Your task to perform on an android device: set default search engine in the chrome app Image 0: 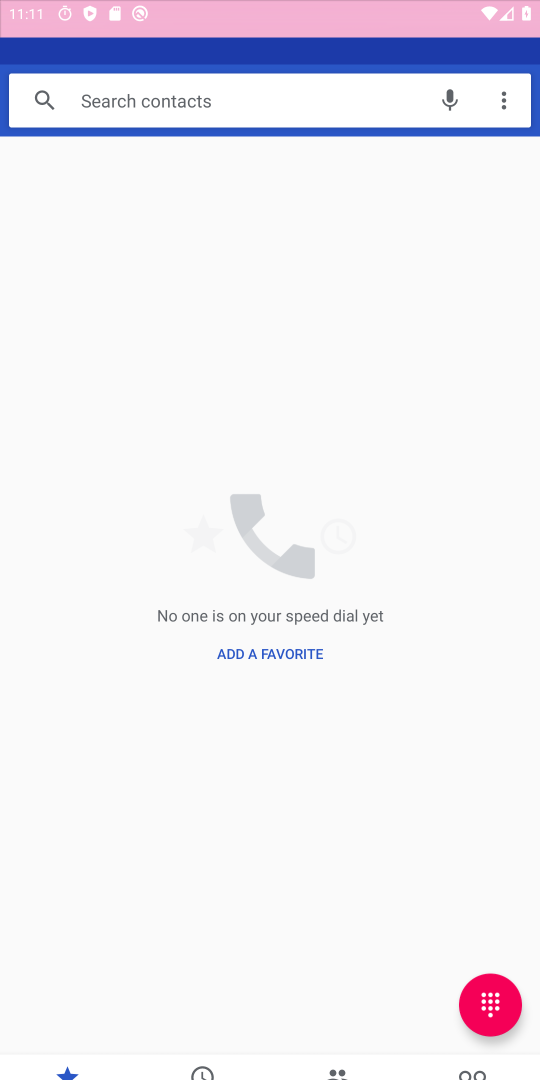
Step 0: press home button
Your task to perform on an android device: set default search engine in the chrome app Image 1: 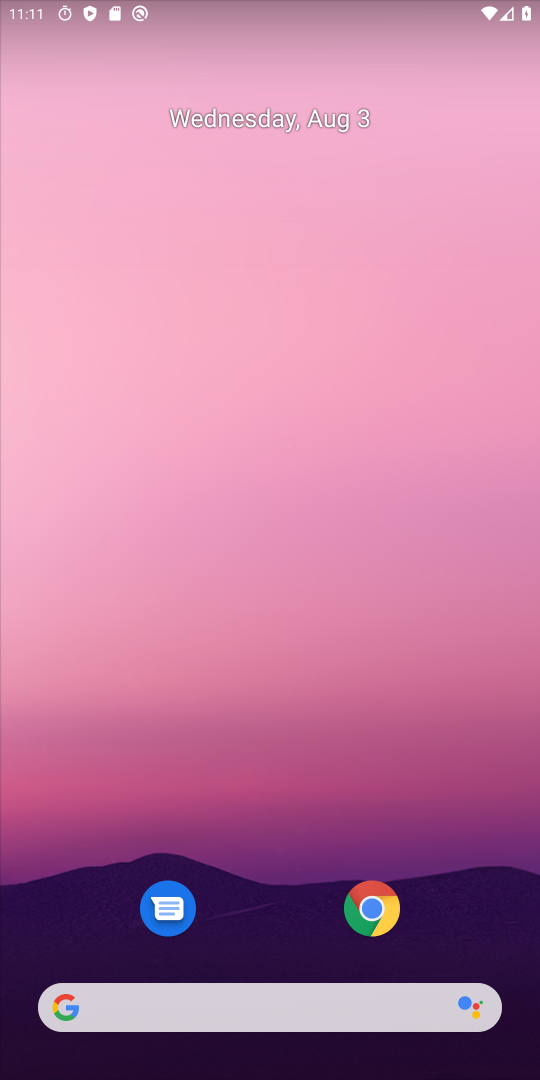
Step 1: drag from (296, 1034) to (242, 219)
Your task to perform on an android device: set default search engine in the chrome app Image 2: 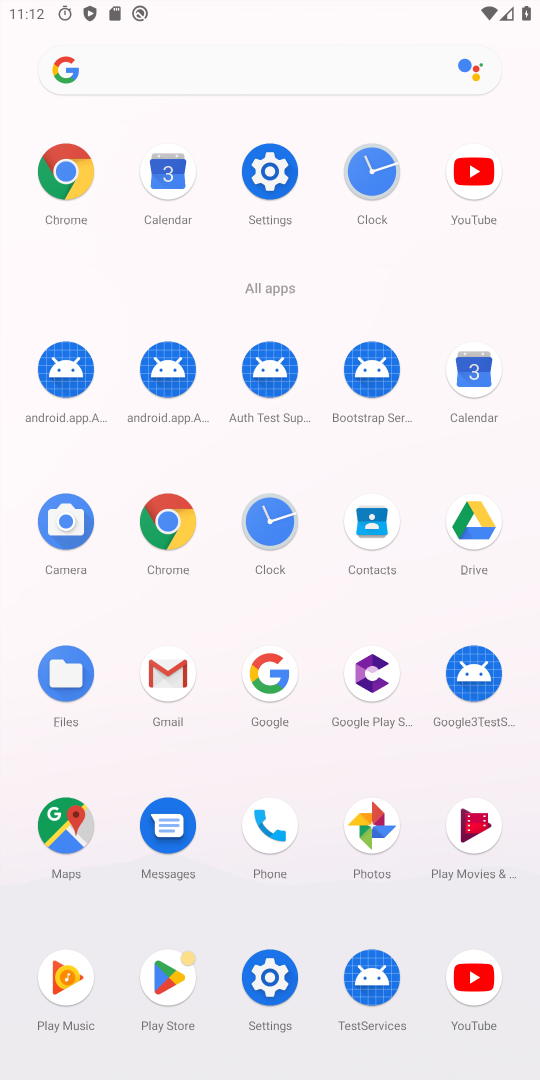
Step 2: click (158, 530)
Your task to perform on an android device: set default search engine in the chrome app Image 3: 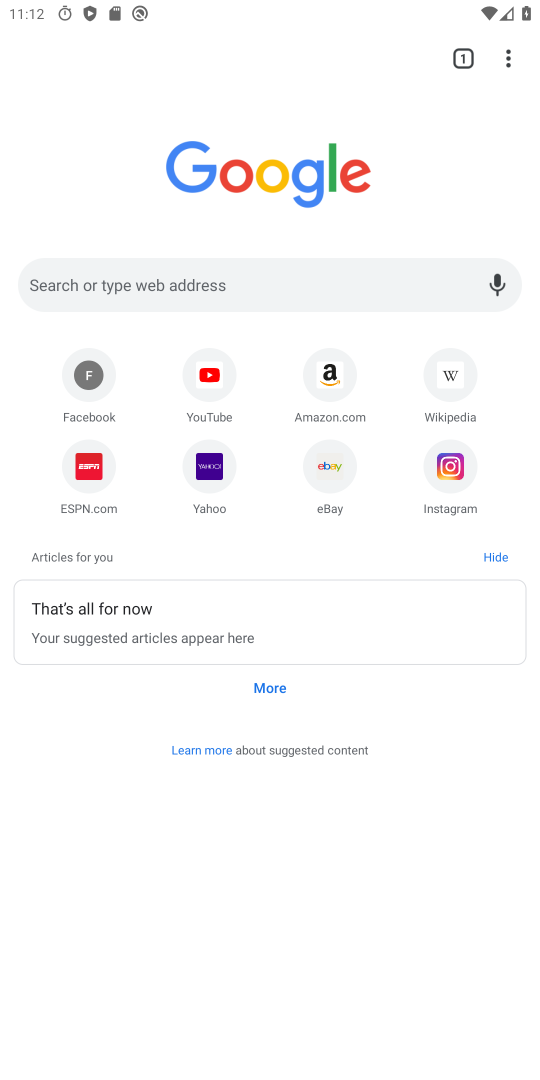
Step 3: click (495, 78)
Your task to perform on an android device: set default search engine in the chrome app Image 4: 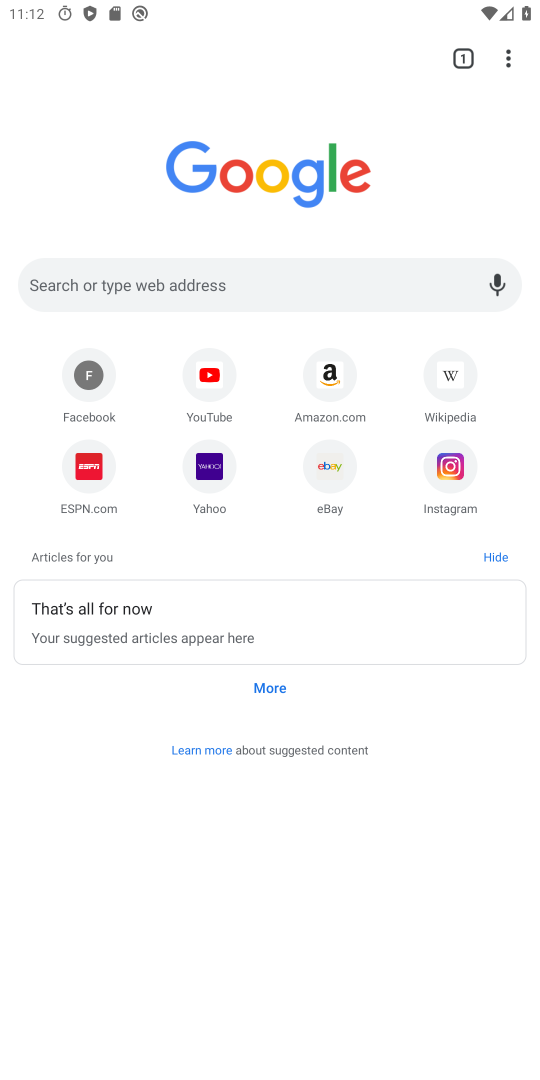
Step 4: click (496, 76)
Your task to perform on an android device: set default search engine in the chrome app Image 5: 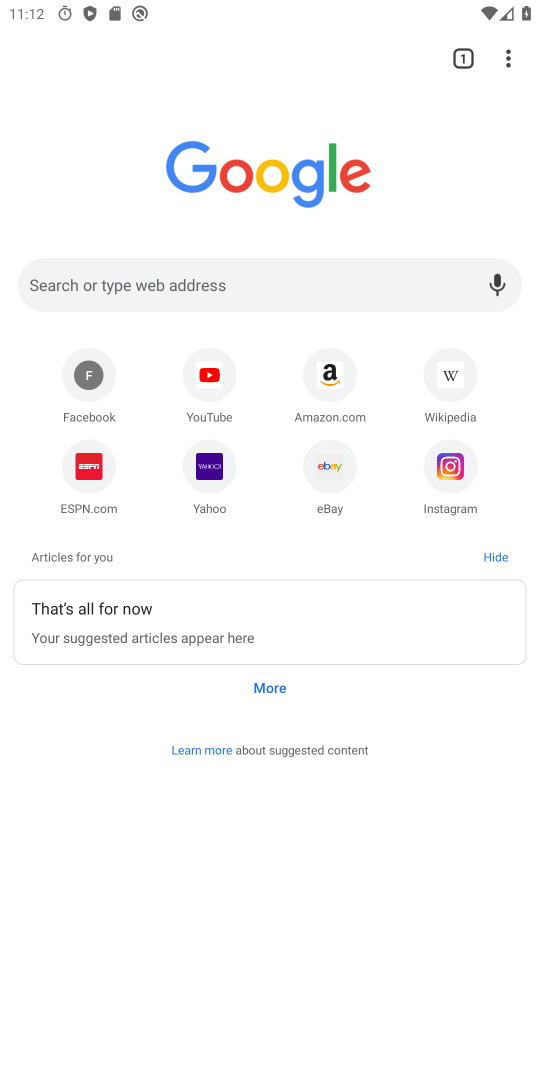
Step 5: click (496, 76)
Your task to perform on an android device: set default search engine in the chrome app Image 6: 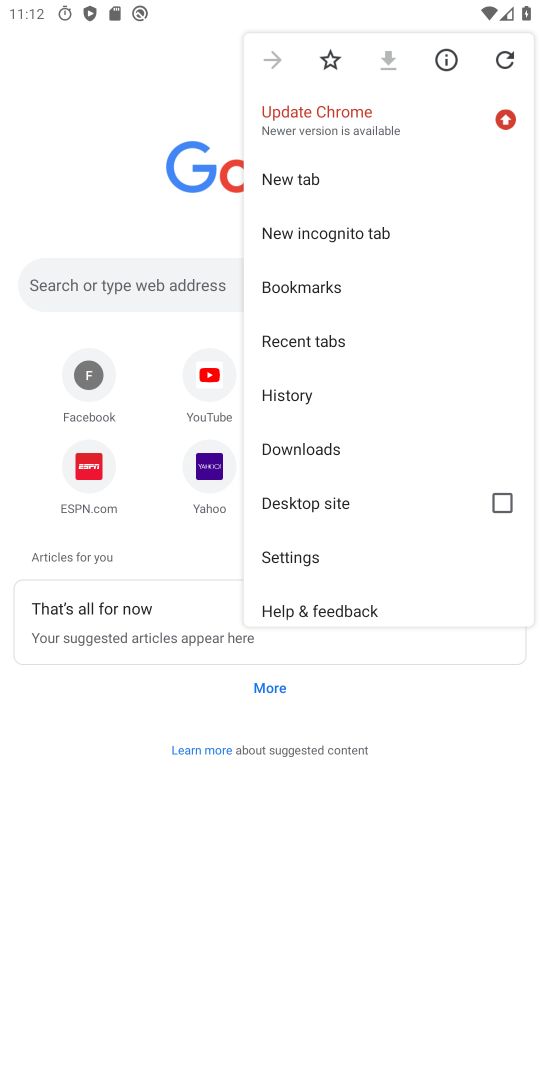
Step 6: click (312, 560)
Your task to perform on an android device: set default search engine in the chrome app Image 7: 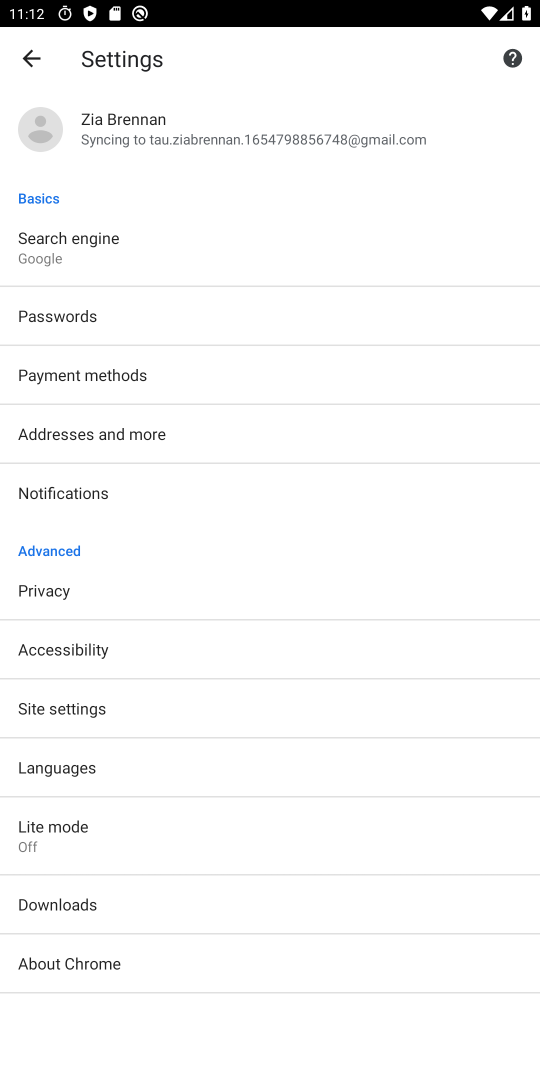
Step 7: click (61, 240)
Your task to perform on an android device: set default search engine in the chrome app Image 8: 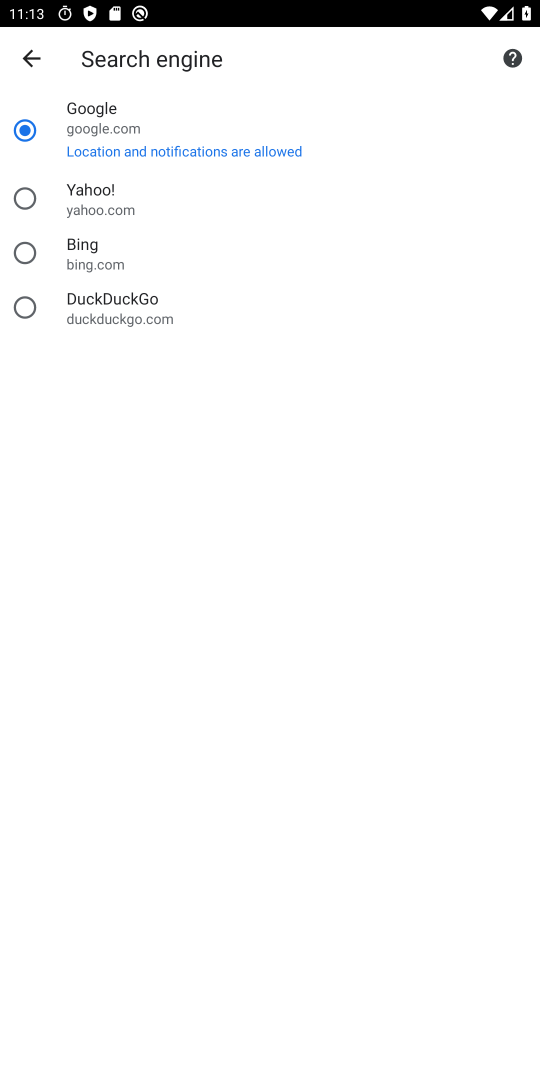
Step 8: task complete